Your task to perform on an android device: visit the assistant section in the google photos Image 0: 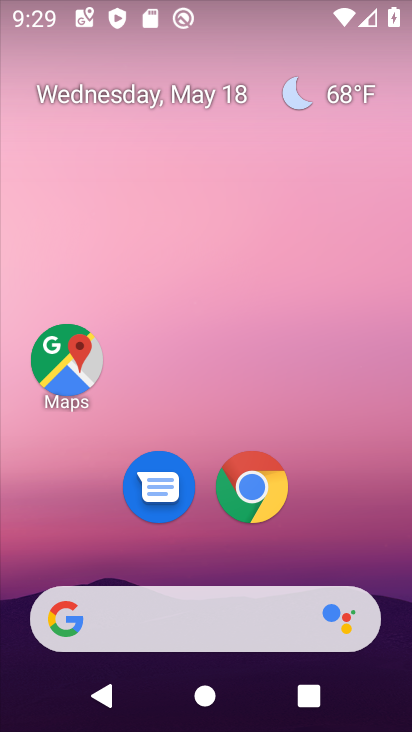
Step 0: drag from (326, 531) to (369, 54)
Your task to perform on an android device: visit the assistant section in the google photos Image 1: 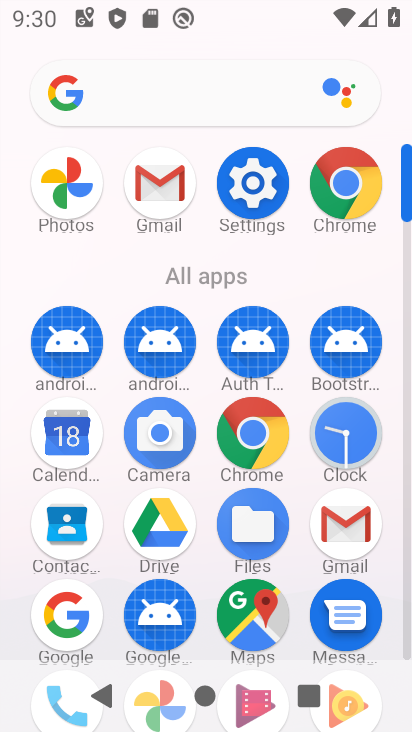
Step 1: drag from (215, 613) to (193, 302)
Your task to perform on an android device: visit the assistant section in the google photos Image 2: 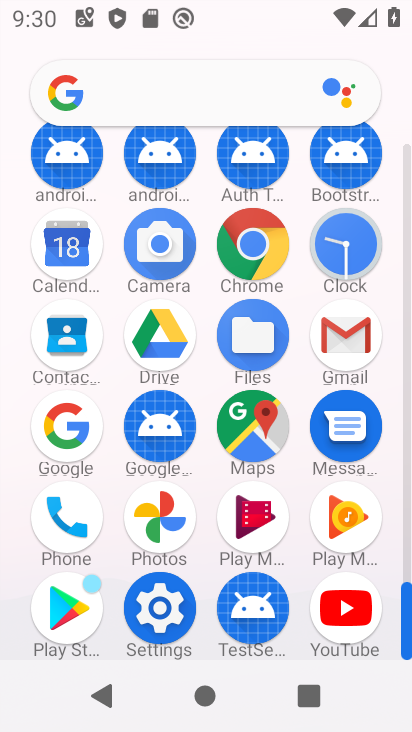
Step 2: click (174, 525)
Your task to perform on an android device: visit the assistant section in the google photos Image 3: 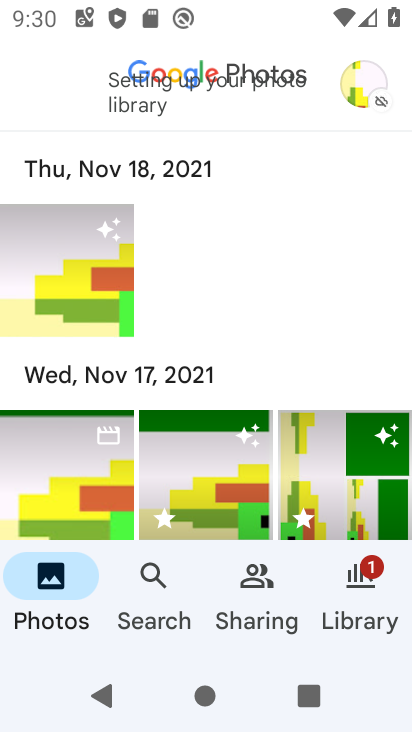
Step 3: click (150, 579)
Your task to perform on an android device: visit the assistant section in the google photos Image 4: 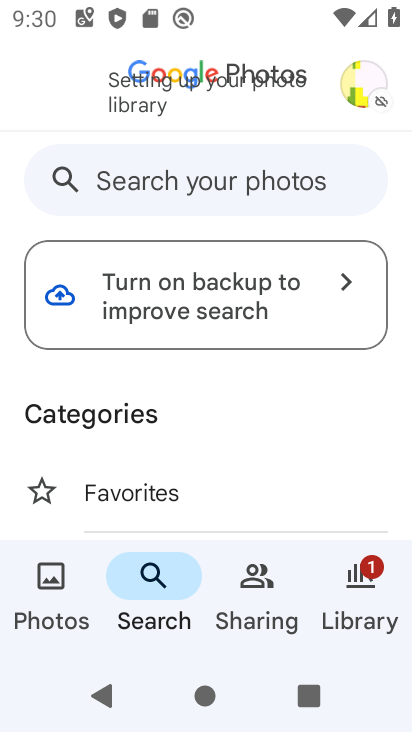
Step 4: click (379, 584)
Your task to perform on an android device: visit the assistant section in the google photos Image 5: 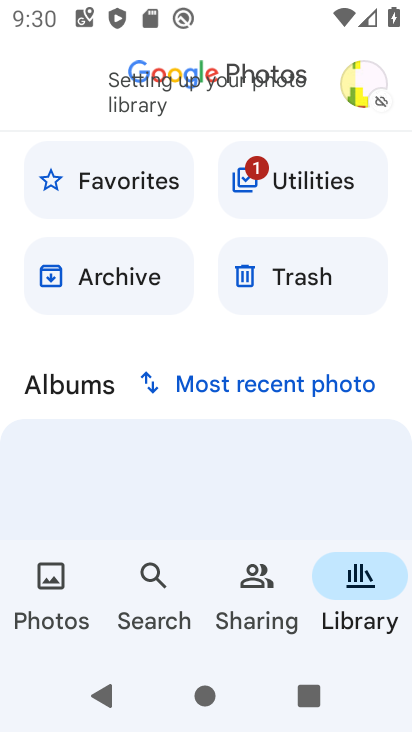
Step 5: task complete